Your task to perform on an android device: toggle airplane mode Image 0: 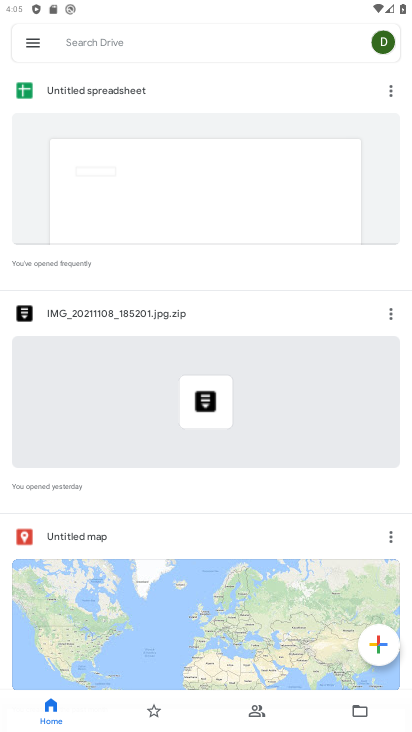
Step 0: drag from (220, 7) to (196, 640)
Your task to perform on an android device: toggle airplane mode Image 1: 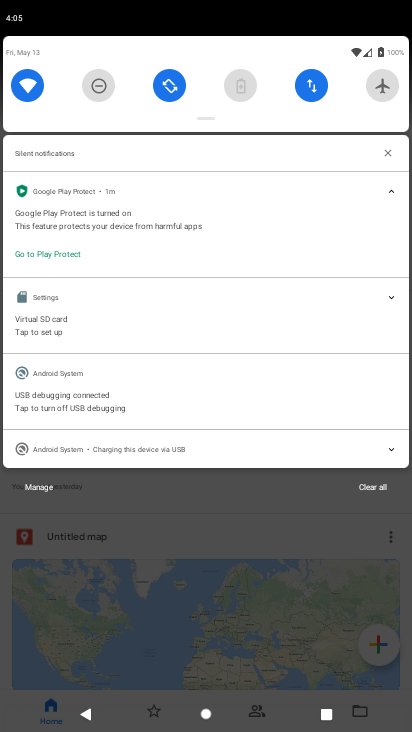
Step 1: click (377, 85)
Your task to perform on an android device: toggle airplane mode Image 2: 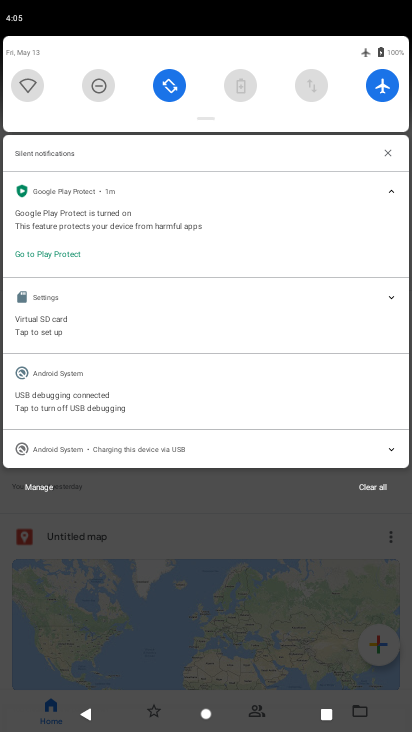
Step 2: task complete